Your task to perform on an android device: Search for bose soundlink mini on walmart, select the first entry, add it to the cart, then select checkout. Image 0: 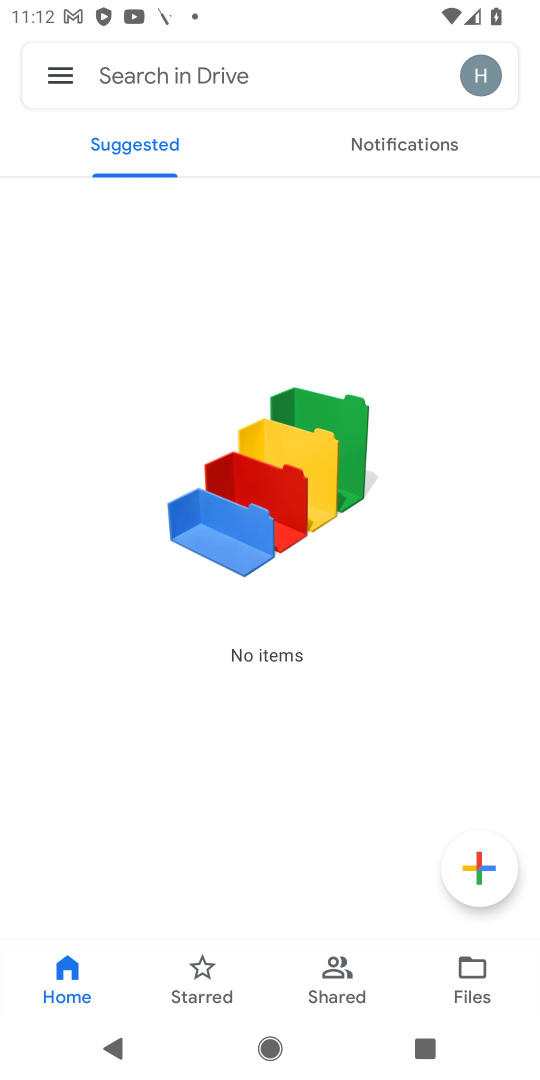
Step 0: press home button
Your task to perform on an android device: Search for bose soundlink mini on walmart, select the first entry, add it to the cart, then select checkout. Image 1: 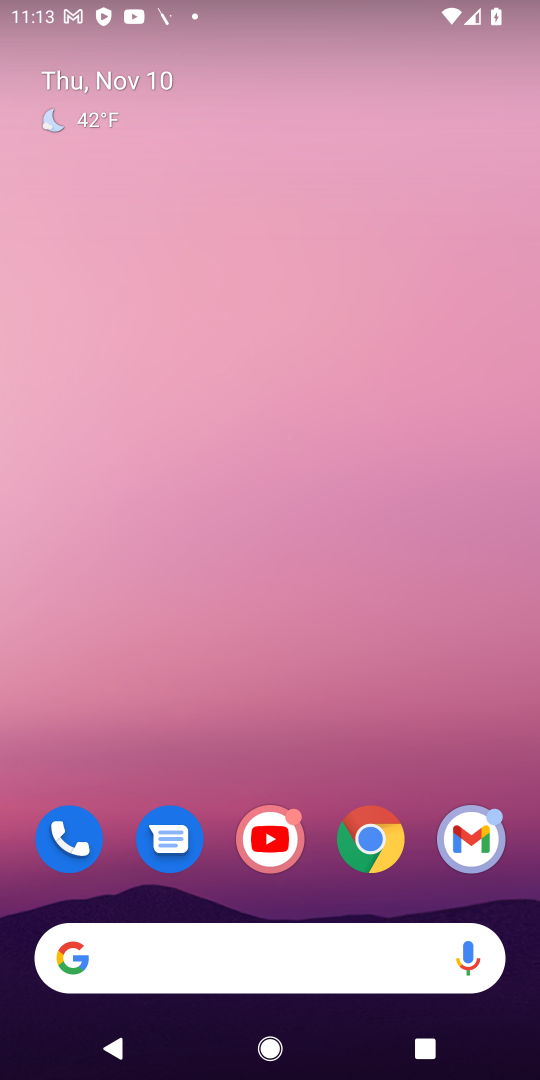
Step 1: click (369, 837)
Your task to perform on an android device: Search for bose soundlink mini on walmart, select the first entry, add it to the cart, then select checkout. Image 2: 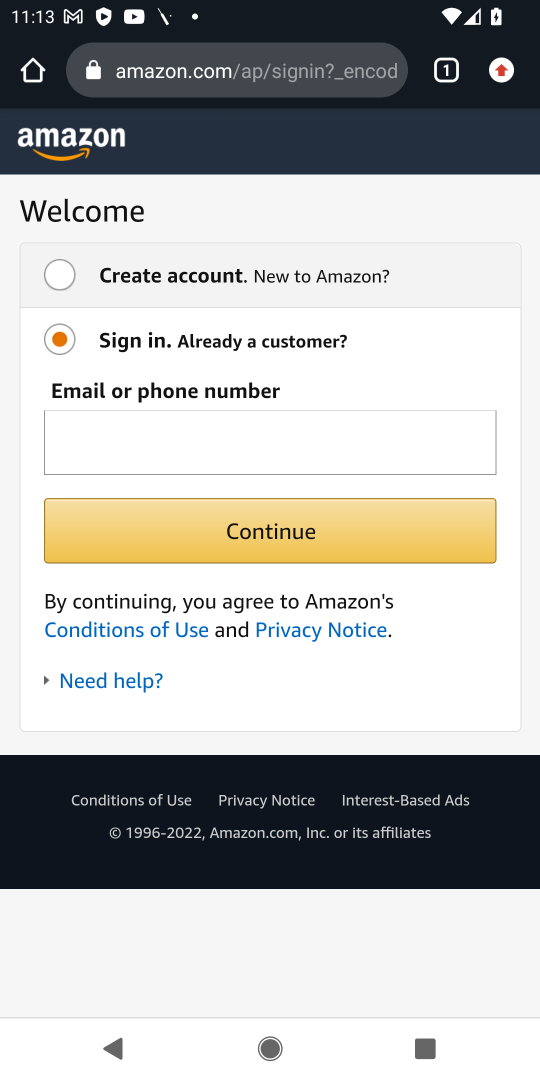
Step 2: click (252, 80)
Your task to perform on an android device: Search for bose soundlink mini on walmart, select the first entry, add it to the cart, then select checkout. Image 3: 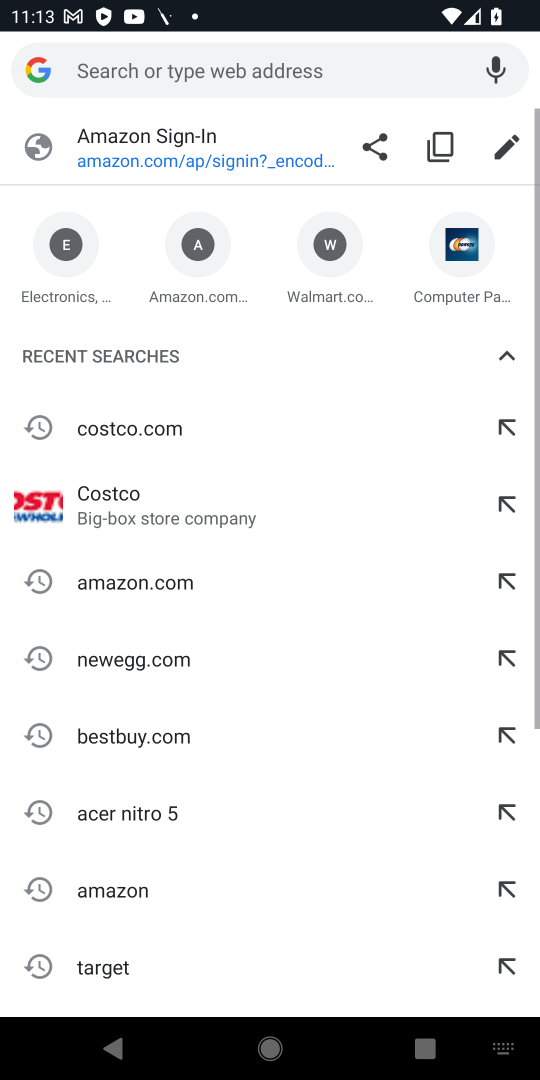
Step 3: drag from (146, 861) to (166, 421)
Your task to perform on an android device: Search for bose soundlink mini on walmart, select the first entry, add it to the cart, then select checkout. Image 4: 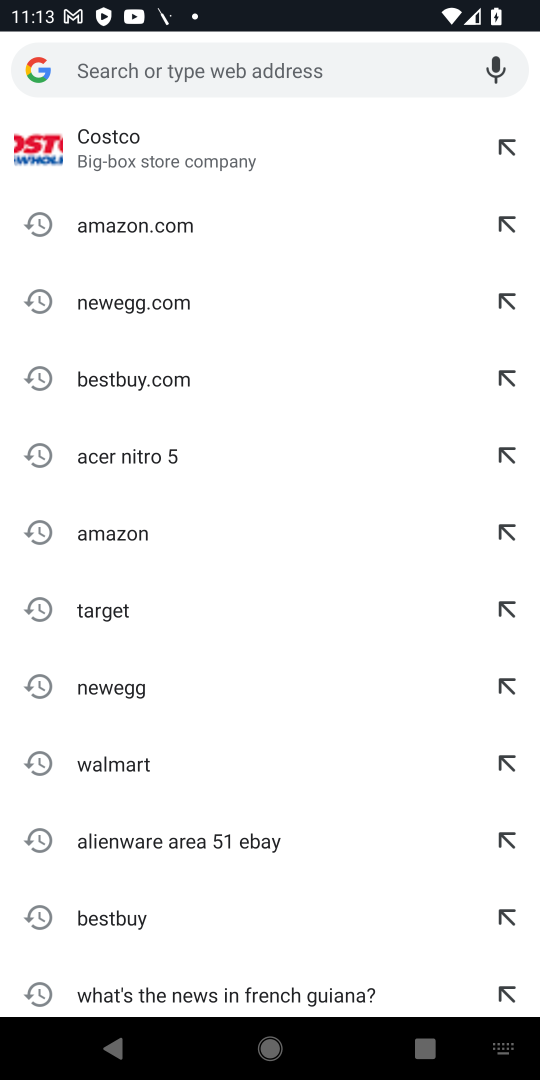
Step 4: click (112, 751)
Your task to perform on an android device: Search for bose soundlink mini on walmart, select the first entry, add it to the cart, then select checkout. Image 5: 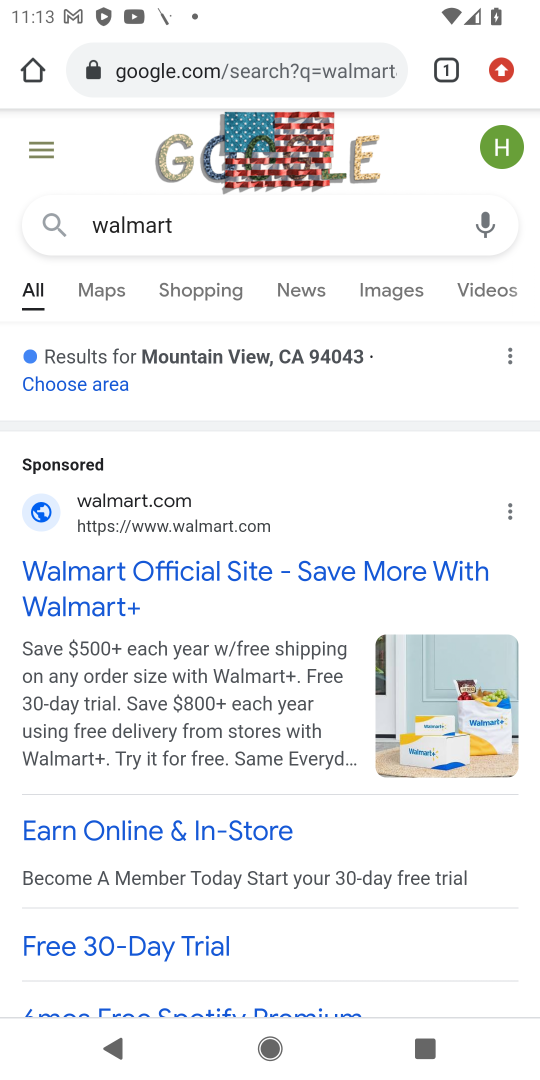
Step 5: click (235, 528)
Your task to perform on an android device: Search for bose soundlink mini on walmart, select the first entry, add it to the cart, then select checkout. Image 6: 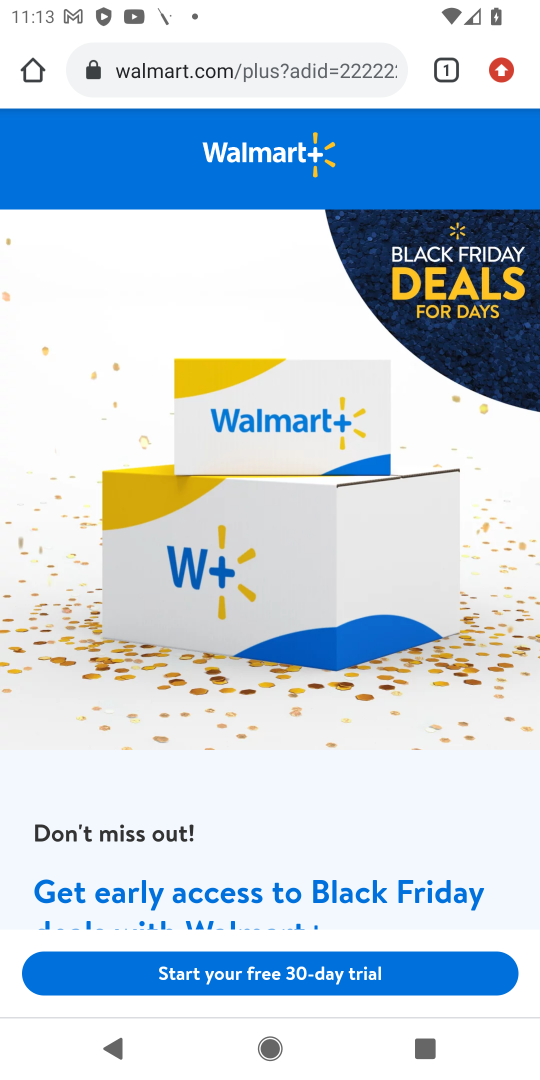
Step 6: press back button
Your task to perform on an android device: Search for bose soundlink mini on walmart, select the first entry, add it to the cart, then select checkout. Image 7: 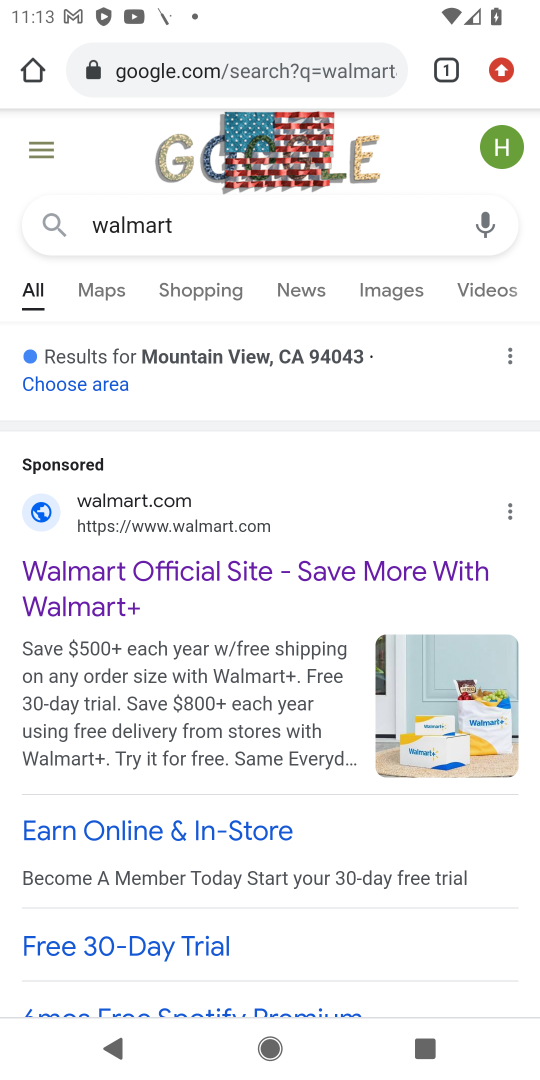
Step 7: drag from (396, 923) to (426, 335)
Your task to perform on an android device: Search for bose soundlink mini on walmart, select the first entry, add it to the cart, then select checkout. Image 8: 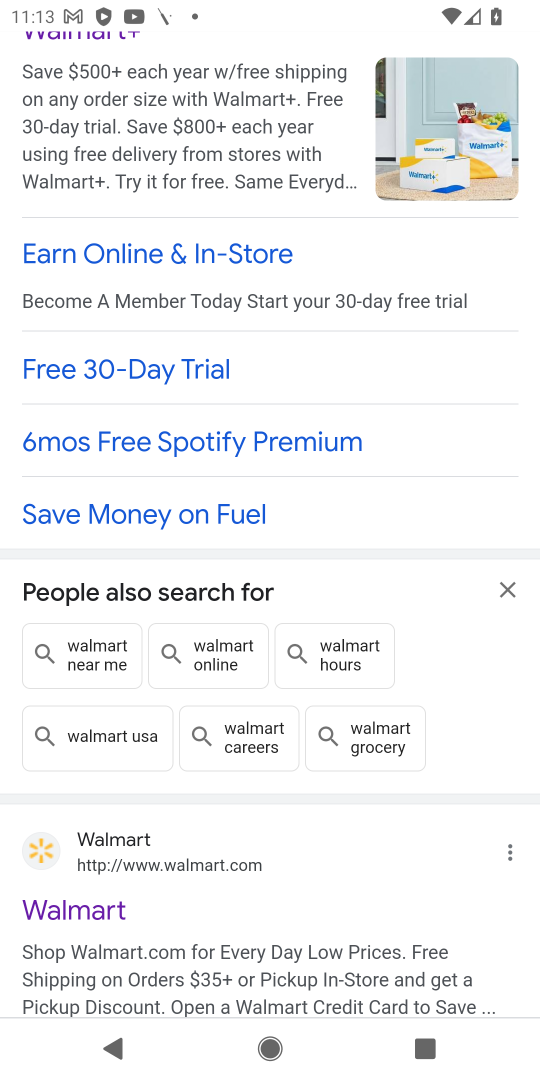
Step 8: click (235, 861)
Your task to perform on an android device: Search for bose soundlink mini on walmart, select the first entry, add it to the cart, then select checkout. Image 9: 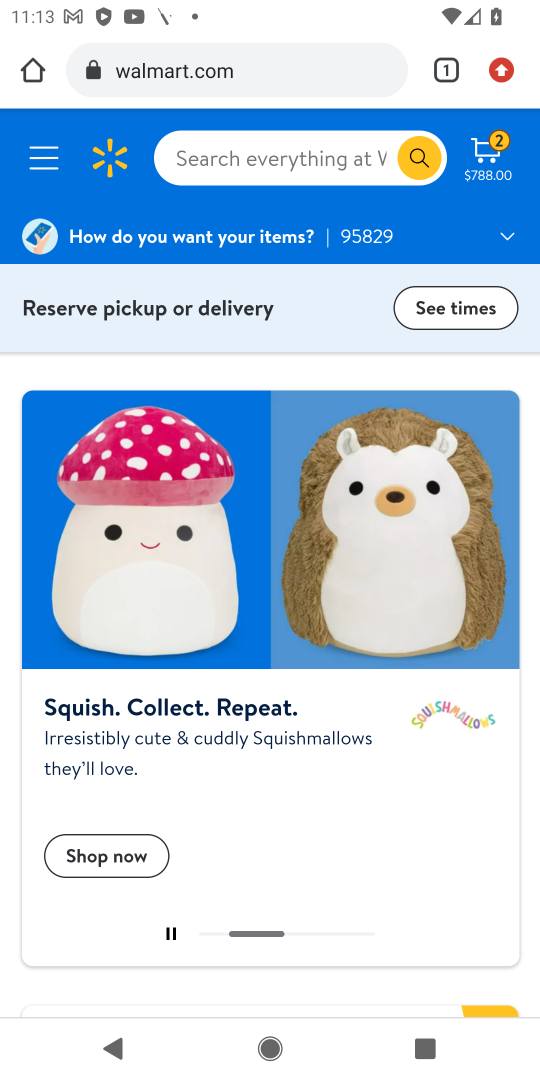
Step 9: click (328, 154)
Your task to perform on an android device: Search for bose soundlink mini on walmart, select the first entry, add it to the cart, then select checkout. Image 10: 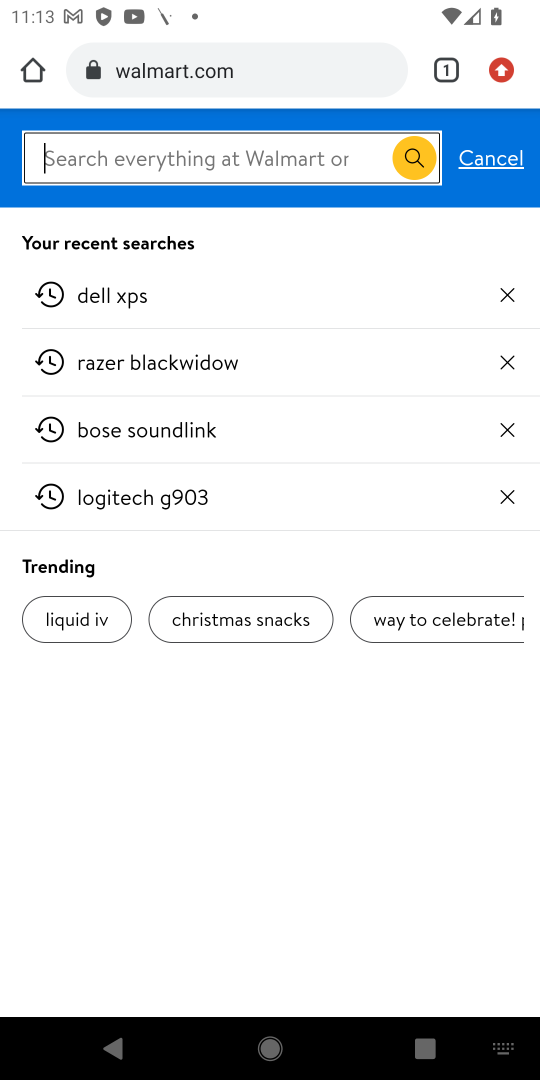
Step 10: type "bose soundlink mini"
Your task to perform on an android device: Search for bose soundlink mini on walmart, select the first entry, add it to the cart, then select checkout. Image 11: 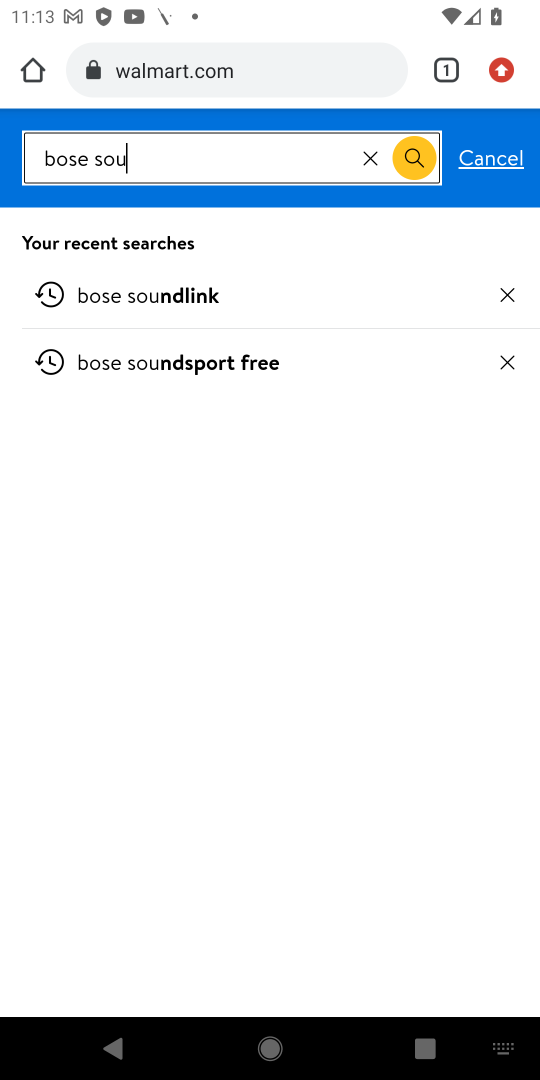
Step 11: press enter
Your task to perform on an android device: Search for bose soundlink mini on walmart, select the first entry, add it to the cart, then select checkout. Image 12: 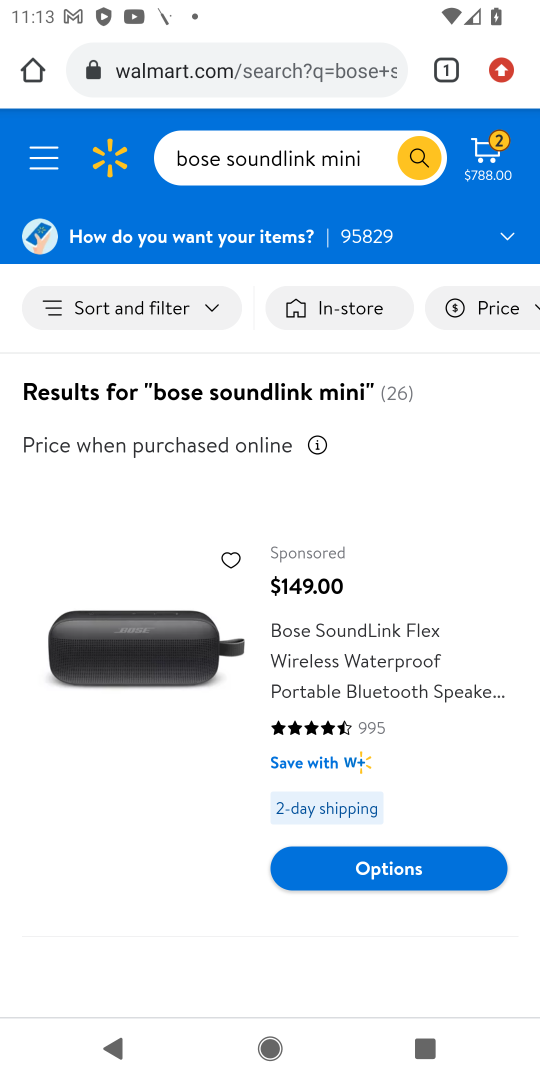
Step 12: task complete